Your task to perform on an android device: toggle data saver in the chrome app Image 0: 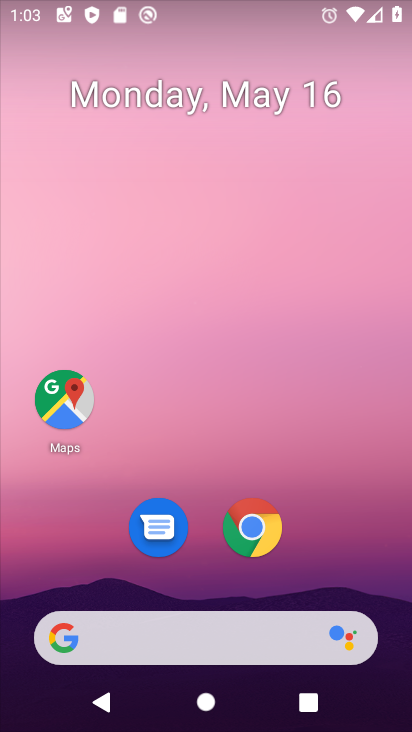
Step 0: click (259, 518)
Your task to perform on an android device: toggle data saver in the chrome app Image 1: 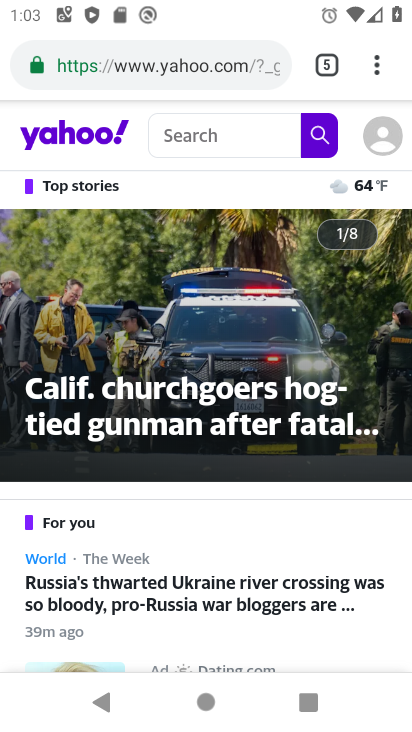
Step 1: click (377, 68)
Your task to perform on an android device: toggle data saver in the chrome app Image 2: 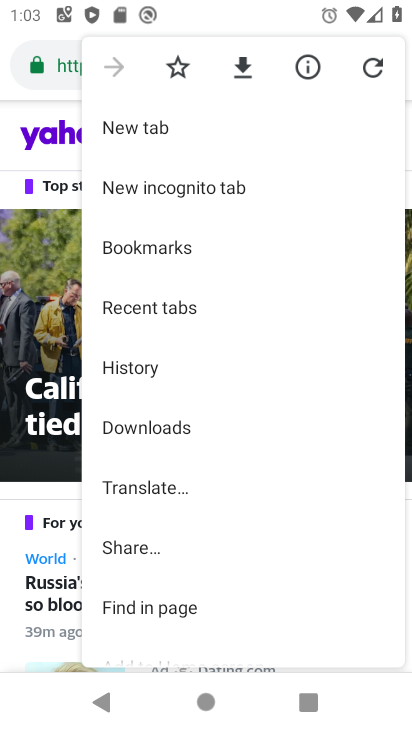
Step 2: drag from (239, 556) to (246, 304)
Your task to perform on an android device: toggle data saver in the chrome app Image 3: 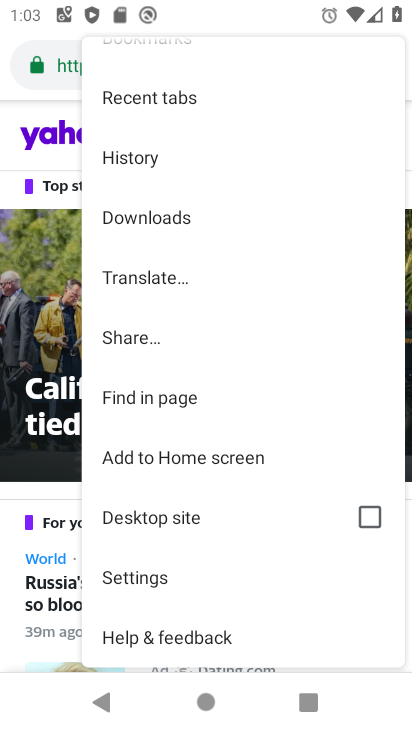
Step 3: click (205, 561)
Your task to perform on an android device: toggle data saver in the chrome app Image 4: 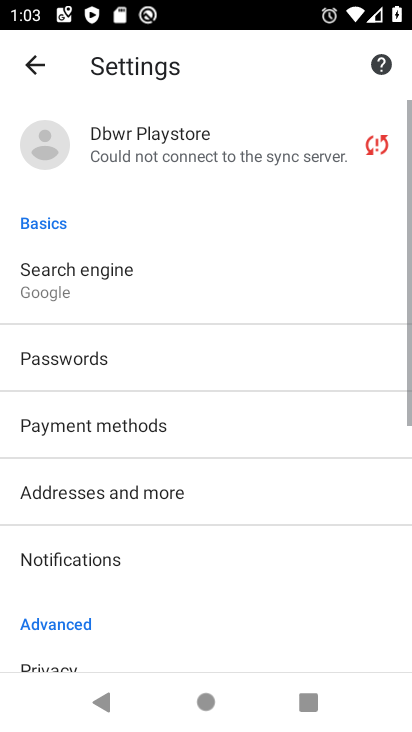
Step 4: drag from (205, 561) to (179, 179)
Your task to perform on an android device: toggle data saver in the chrome app Image 5: 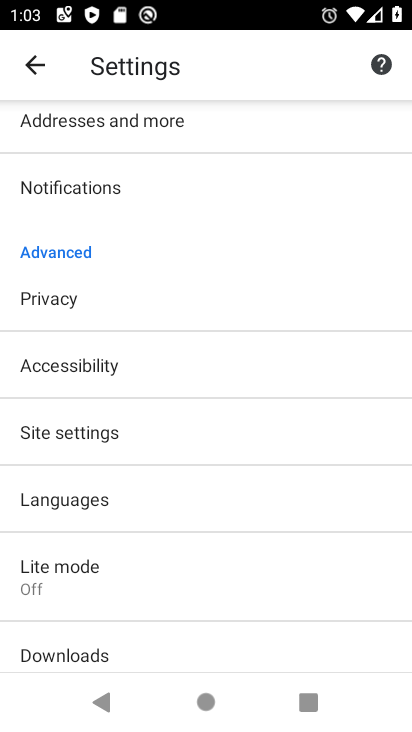
Step 5: click (164, 584)
Your task to perform on an android device: toggle data saver in the chrome app Image 6: 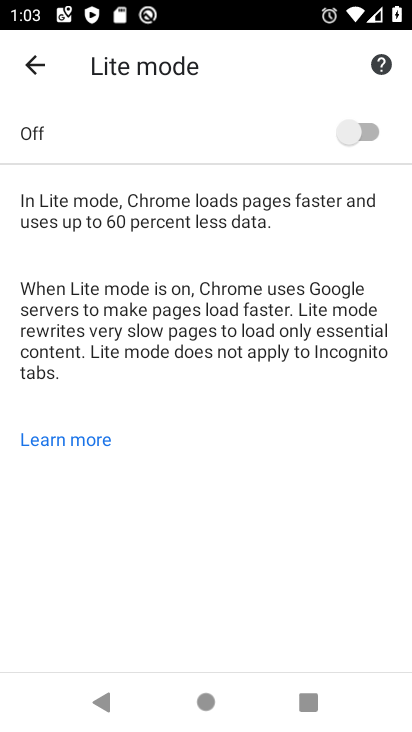
Step 6: click (358, 145)
Your task to perform on an android device: toggle data saver in the chrome app Image 7: 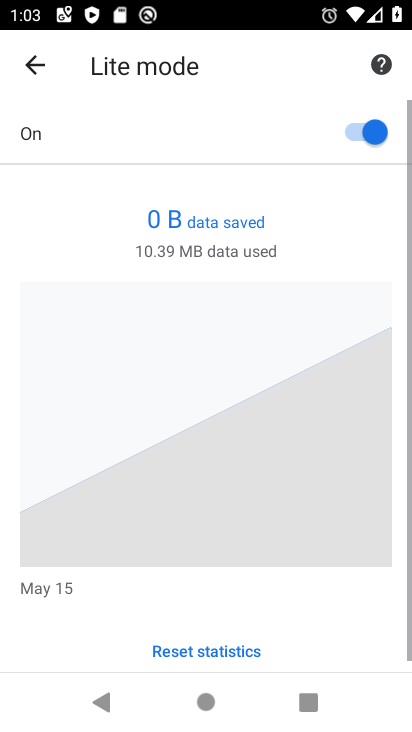
Step 7: task complete